Your task to perform on an android device: see sites visited before in the chrome app Image 0: 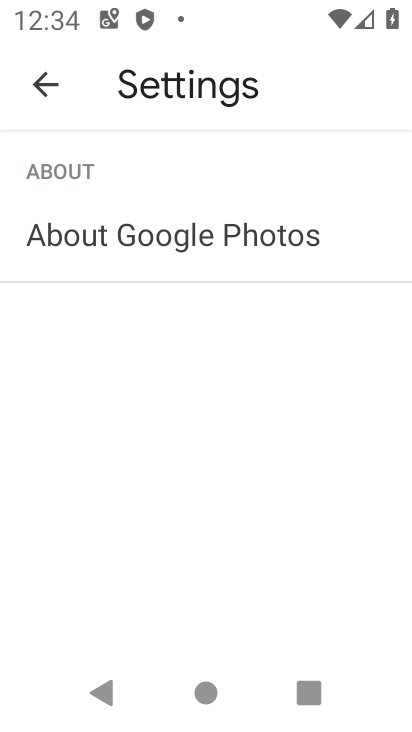
Step 0: press home button
Your task to perform on an android device: see sites visited before in the chrome app Image 1: 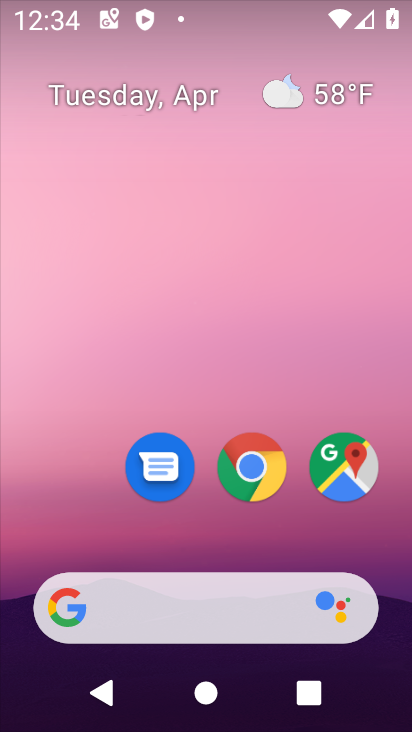
Step 1: click (249, 473)
Your task to perform on an android device: see sites visited before in the chrome app Image 2: 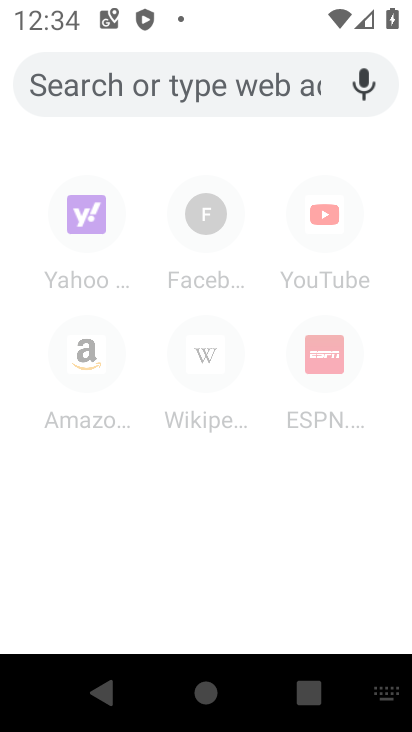
Step 2: press back button
Your task to perform on an android device: see sites visited before in the chrome app Image 3: 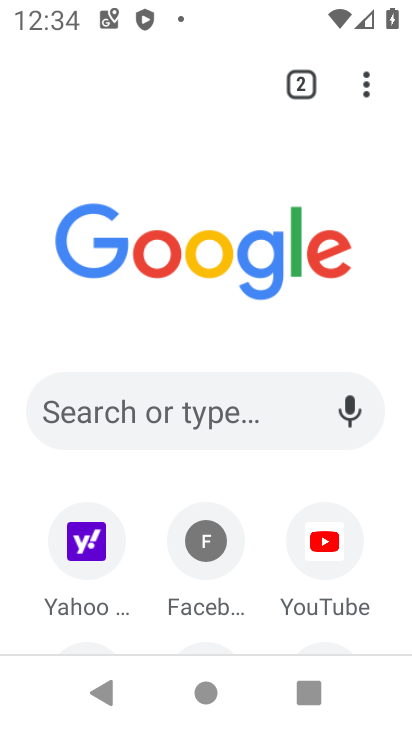
Step 3: click (373, 101)
Your task to perform on an android device: see sites visited before in the chrome app Image 4: 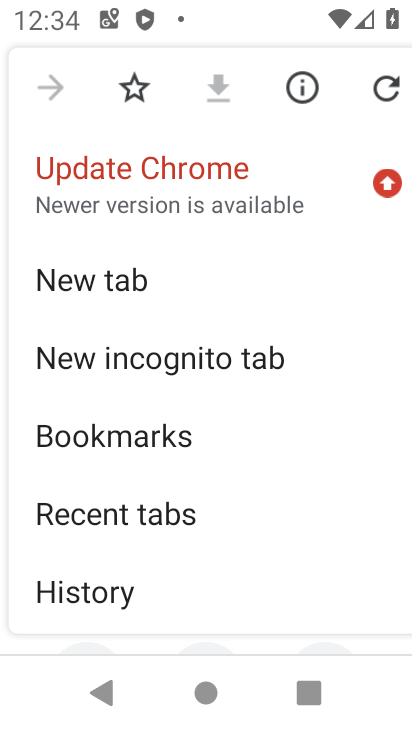
Step 4: click (115, 519)
Your task to perform on an android device: see sites visited before in the chrome app Image 5: 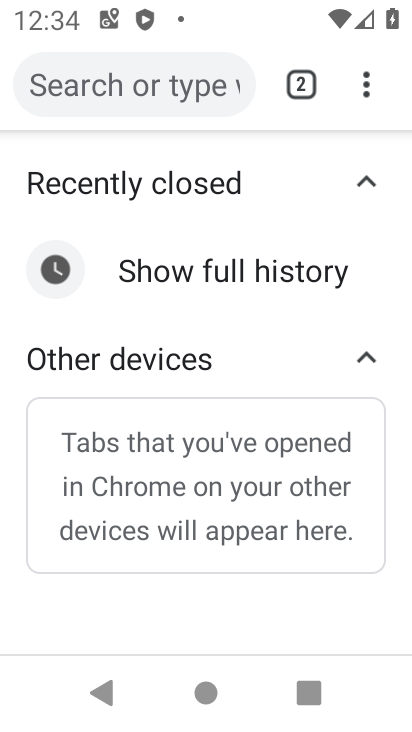
Step 5: task complete